Your task to perform on an android device: Open Android settings Image 0: 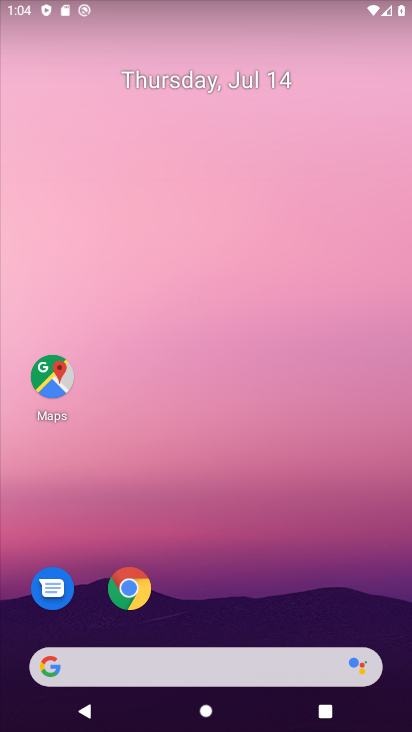
Step 0: drag from (220, 349) to (243, 0)
Your task to perform on an android device: Open Android settings Image 1: 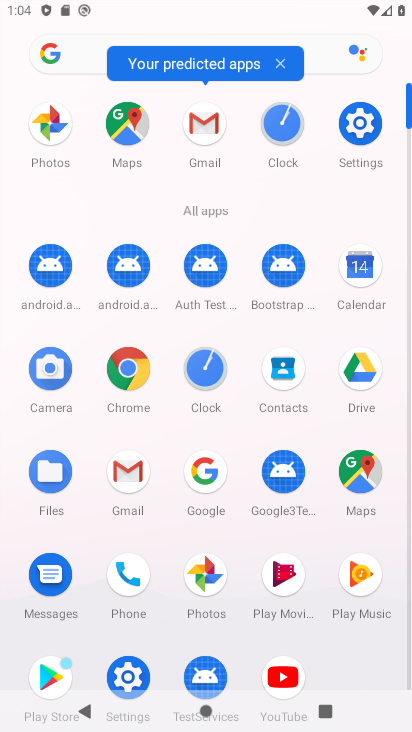
Step 1: click (362, 134)
Your task to perform on an android device: Open Android settings Image 2: 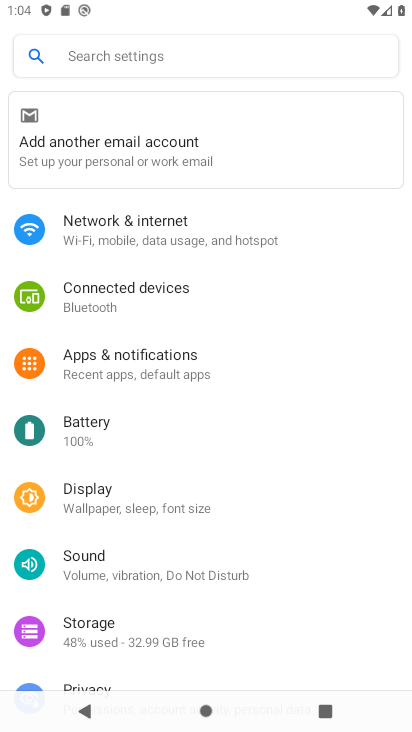
Step 2: drag from (309, 628) to (383, 0)
Your task to perform on an android device: Open Android settings Image 3: 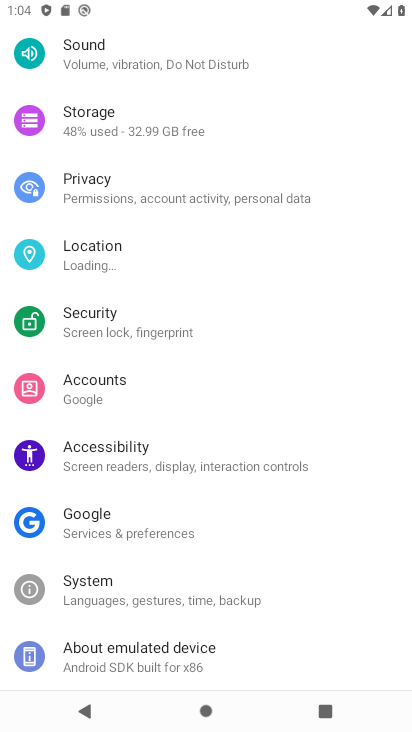
Step 3: drag from (229, 638) to (244, 8)
Your task to perform on an android device: Open Android settings Image 4: 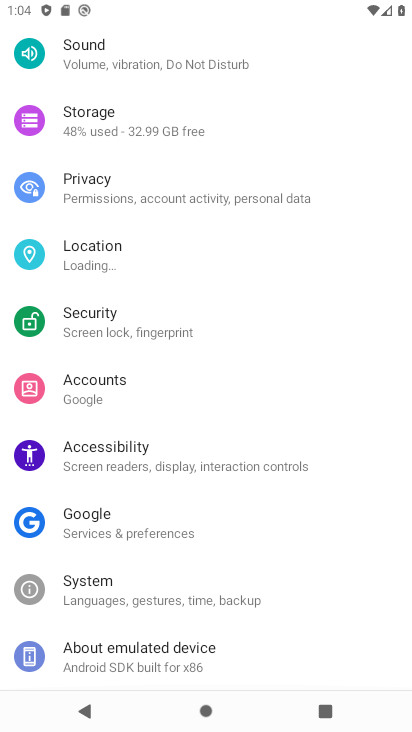
Step 4: click (162, 654)
Your task to perform on an android device: Open Android settings Image 5: 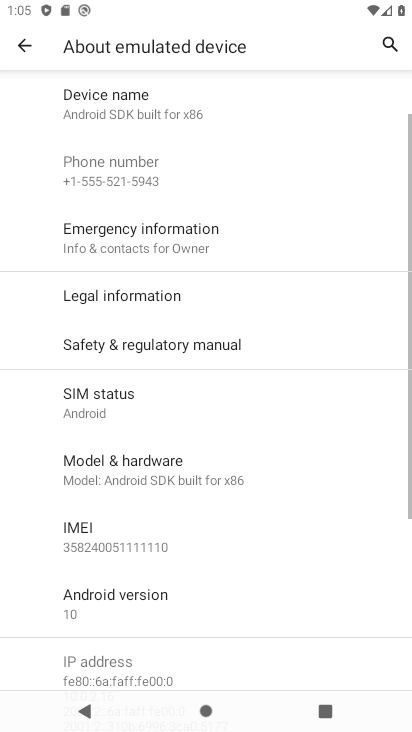
Step 5: task complete